Your task to perform on an android device: show emergency info Image 0: 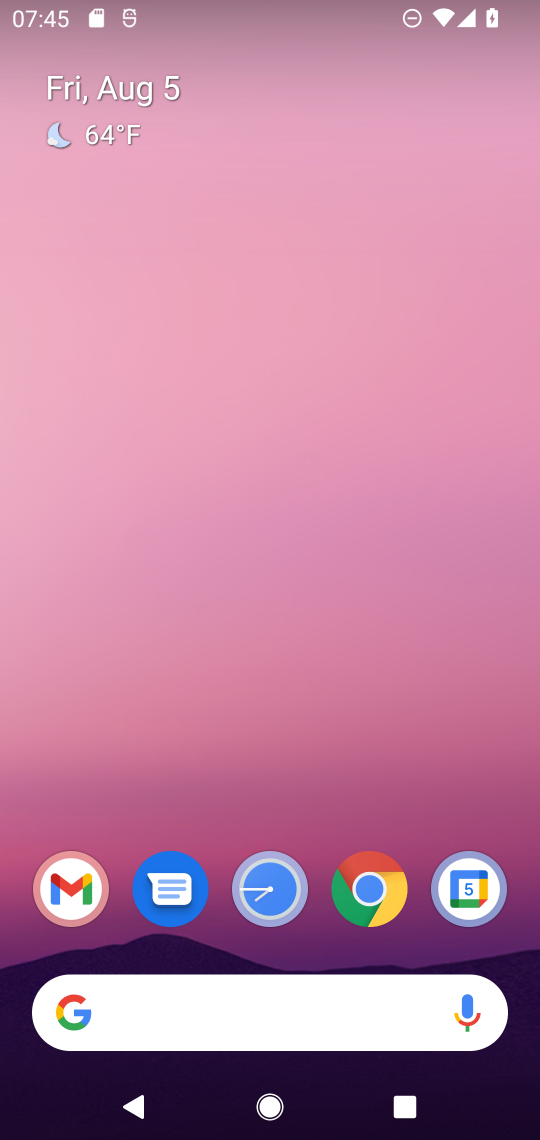
Step 0: drag from (308, 981) to (347, 263)
Your task to perform on an android device: show emergency info Image 1: 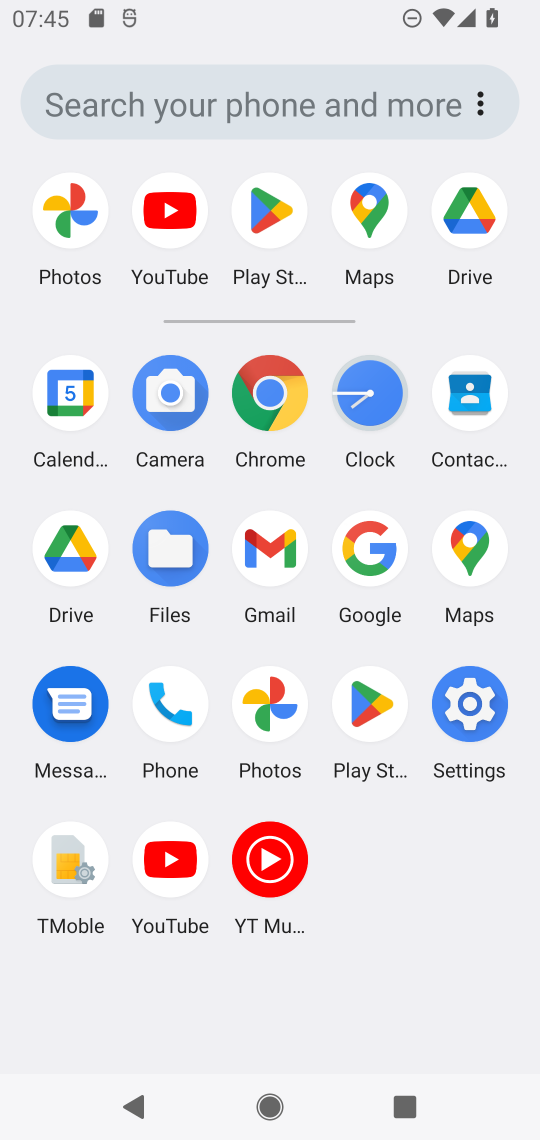
Step 1: click (470, 710)
Your task to perform on an android device: show emergency info Image 2: 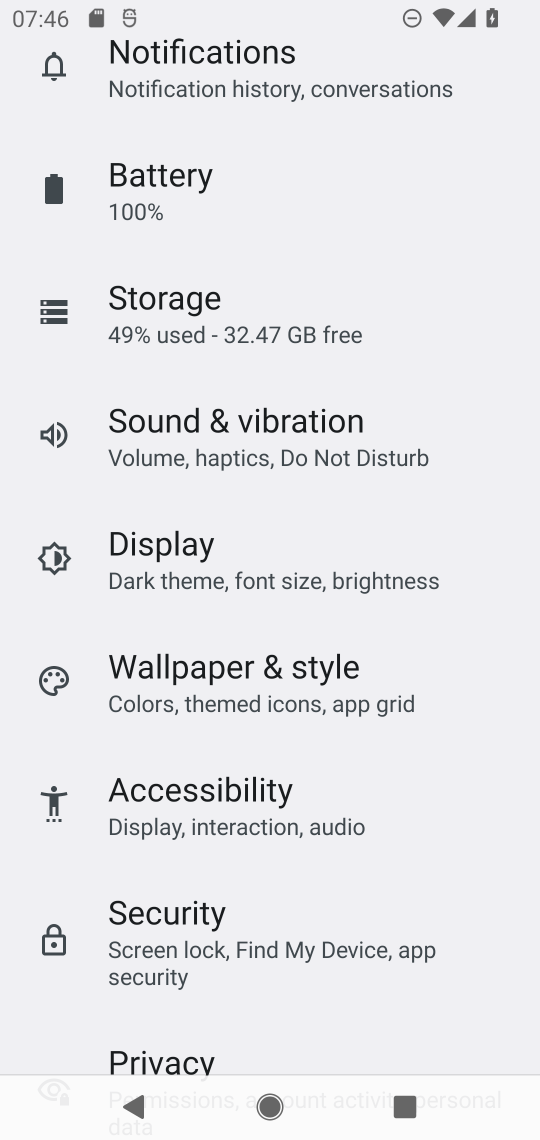
Step 2: drag from (208, 1038) to (201, 388)
Your task to perform on an android device: show emergency info Image 3: 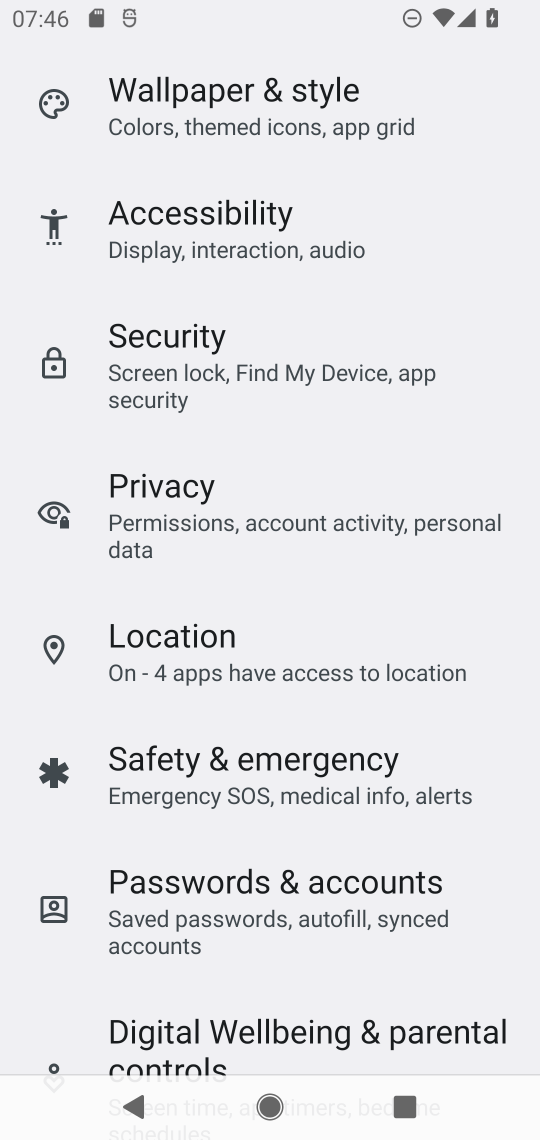
Step 3: drag from (153, 1002) to (197, 376)
Your task to perform on an android device: show emergency info Image 4: 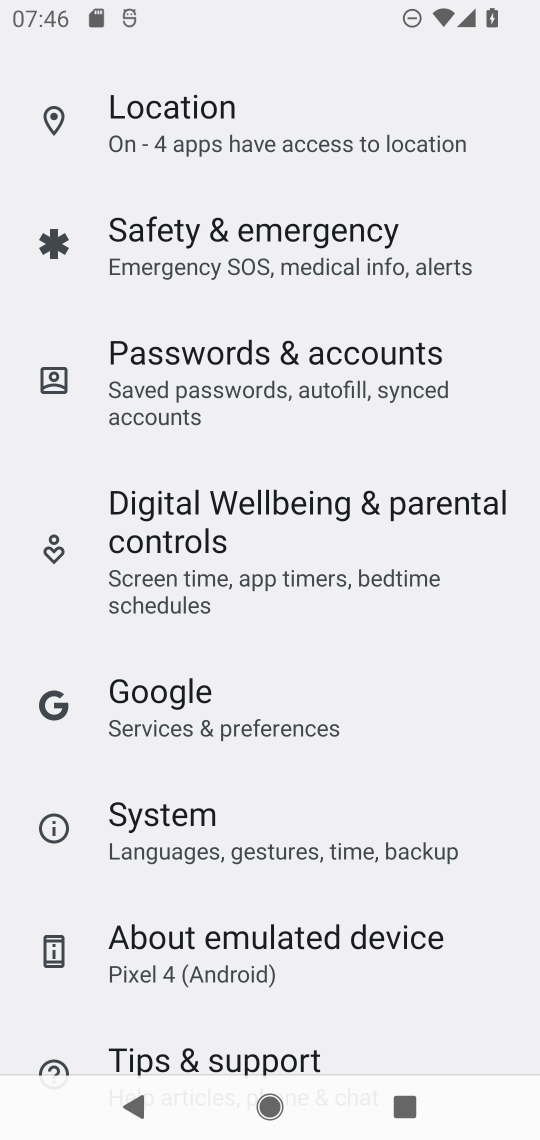
Step 4: click (189, 965)
Your task to perform on an android device: show emergency info Image 5: 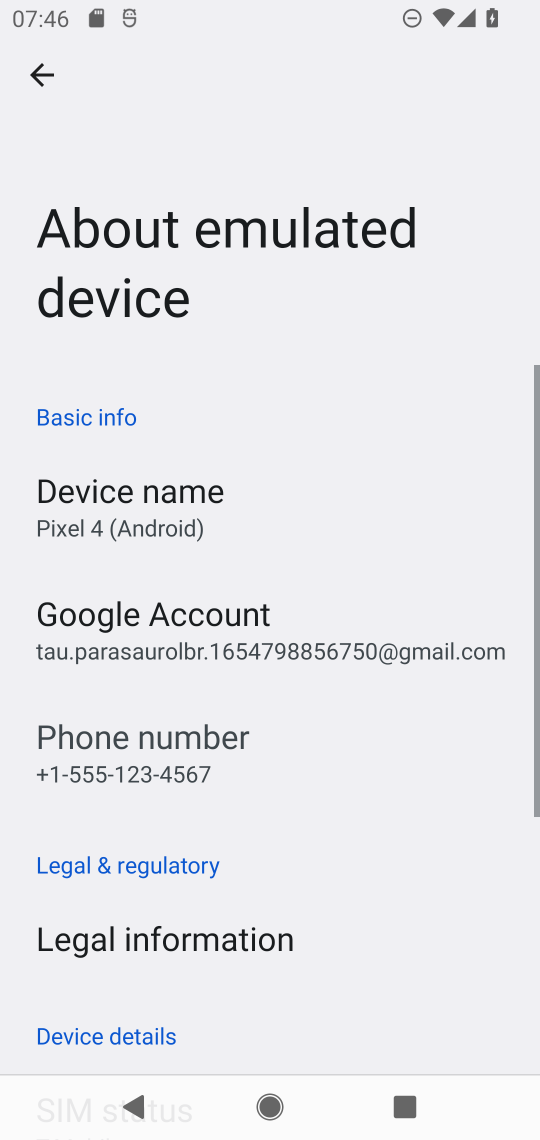
Step 5: click (157, 950)
Your task to perform on an android device: show emergency info Image 6: 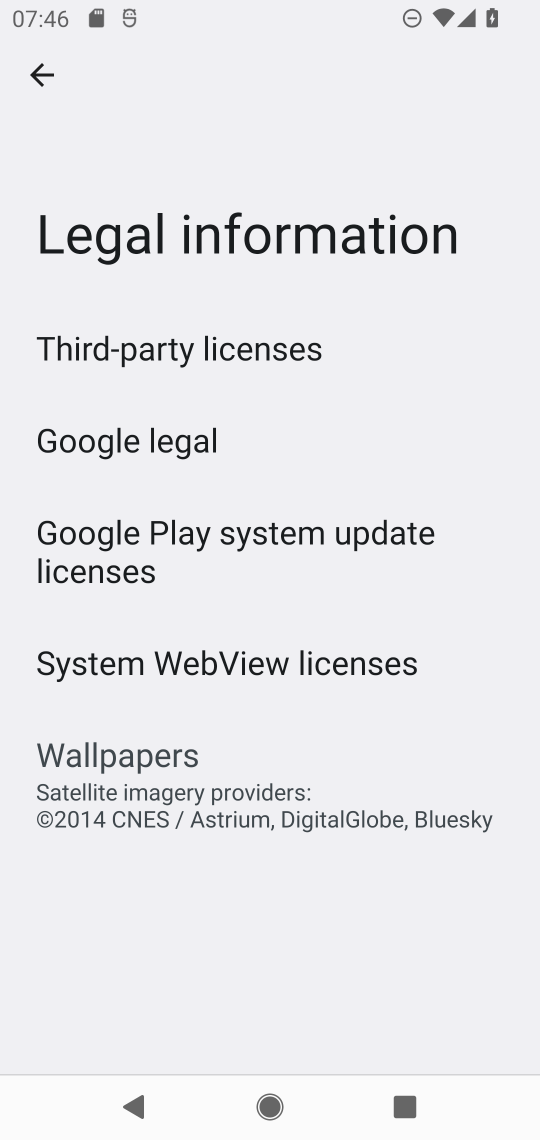
Step 6: task complete